Your task to perform on an android device: Open settings Image 0: 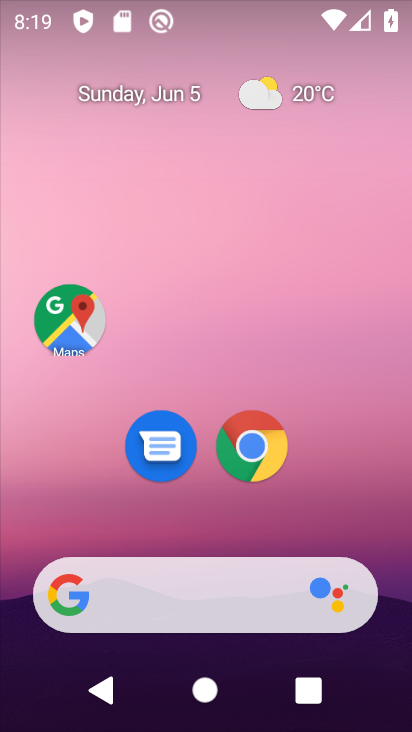
Step 0: drag from (195, 544) to (185, 199)
Your task to perform on an android device: Open settings Image 1: 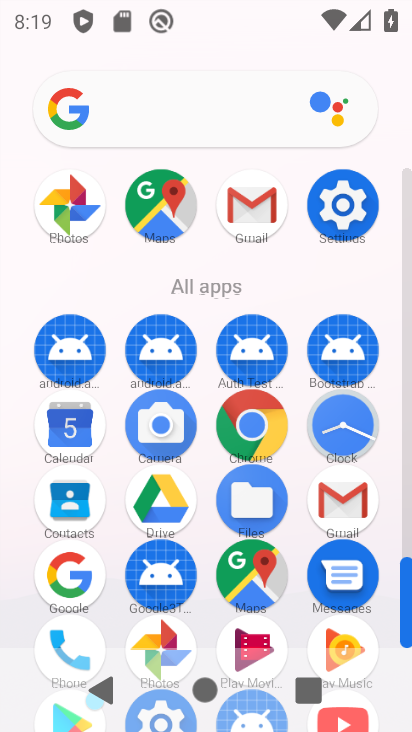
Step 1: click (336, 206)
Your task to perform on an android device: Open settings Image 2: 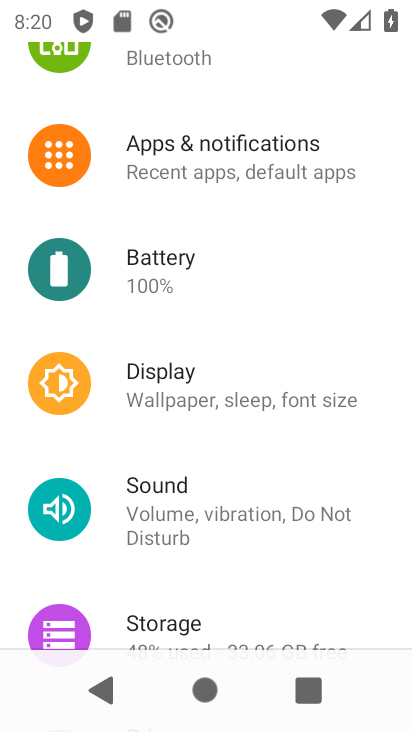
Step 2: task complete